Your task to perform on an android device: delete the emails in spam in the gmail app Image 0: 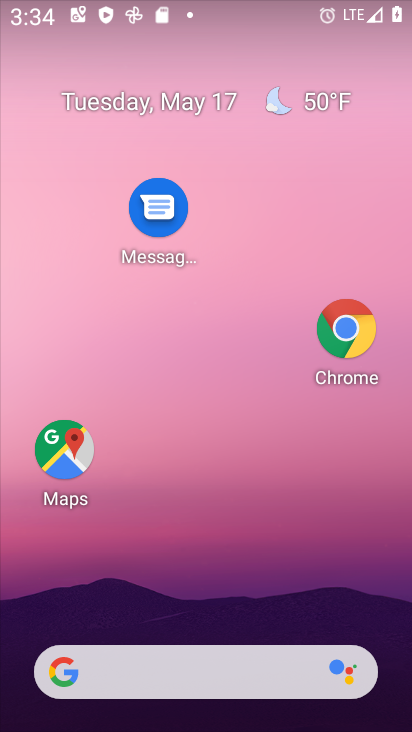
Step 0: drag from (288, 618) to (282, 241)
Your task to perform on an android device: delete the emails in spam in the gmail app Image 1: 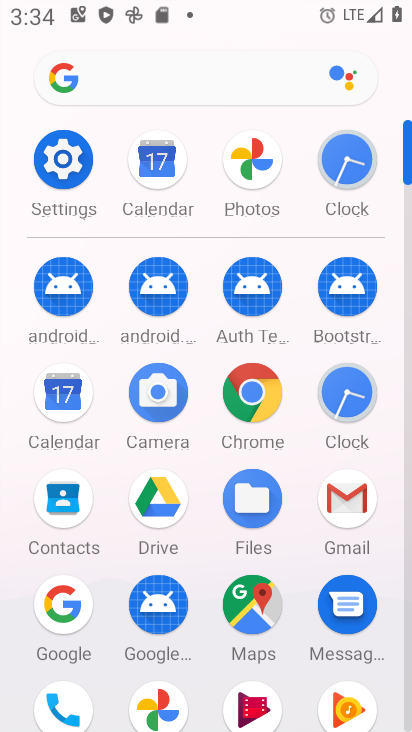
Step 1: click (358, 486)
Your task to perform on an android device: delete the emails in spam in the gmail app Image 2: 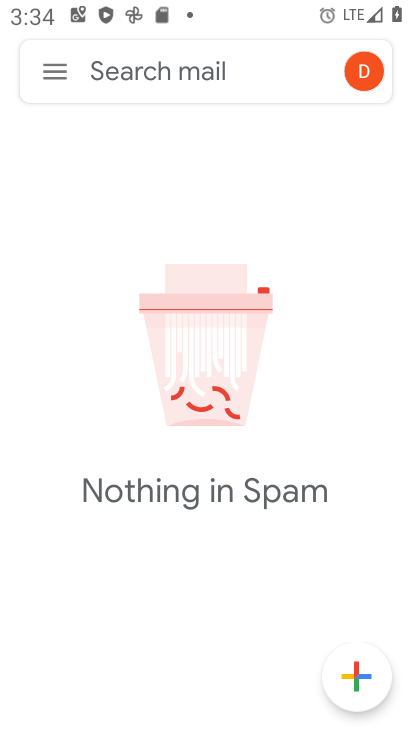
Step 2: click (63, 81)
Your task to perform on an android device: delete the emails in spam in the gmail app Image 3: 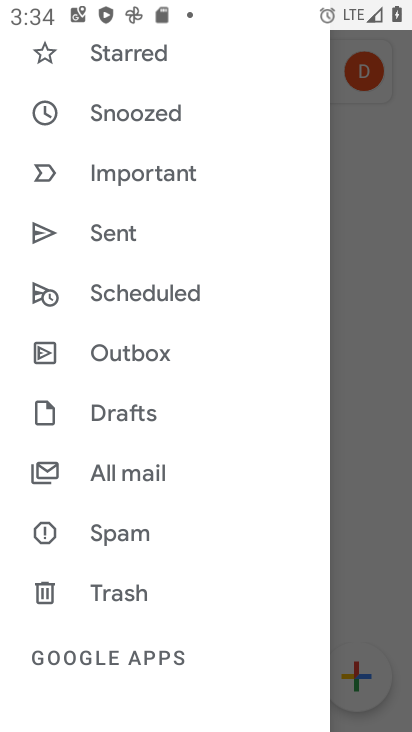
Step 3: drag from (112, 543) to (163, 349)
Your task to perform on an android device: delete the emails in spam in the gmail app Image 4: 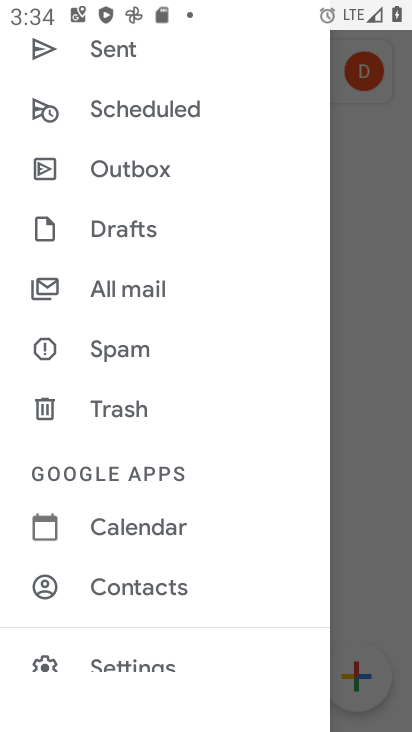
Step 4: click (167, 350)
Your task to perform on an android device: delete the emails in spam in the gmail app Image 5: 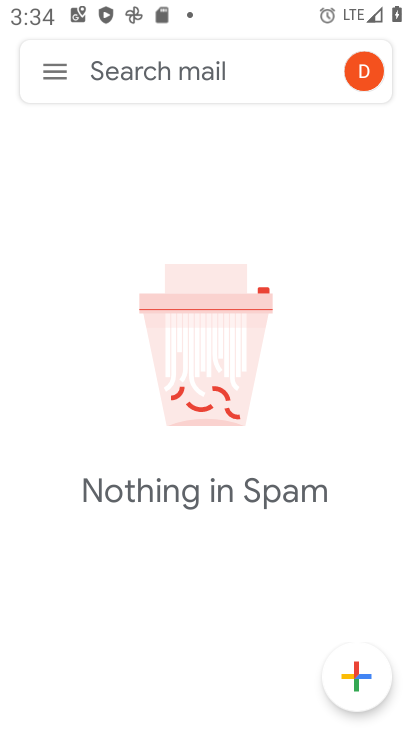
Step 5: task complete